Your task to perform on an android device: open app "Venmo" (install if not already installed) Image 0: 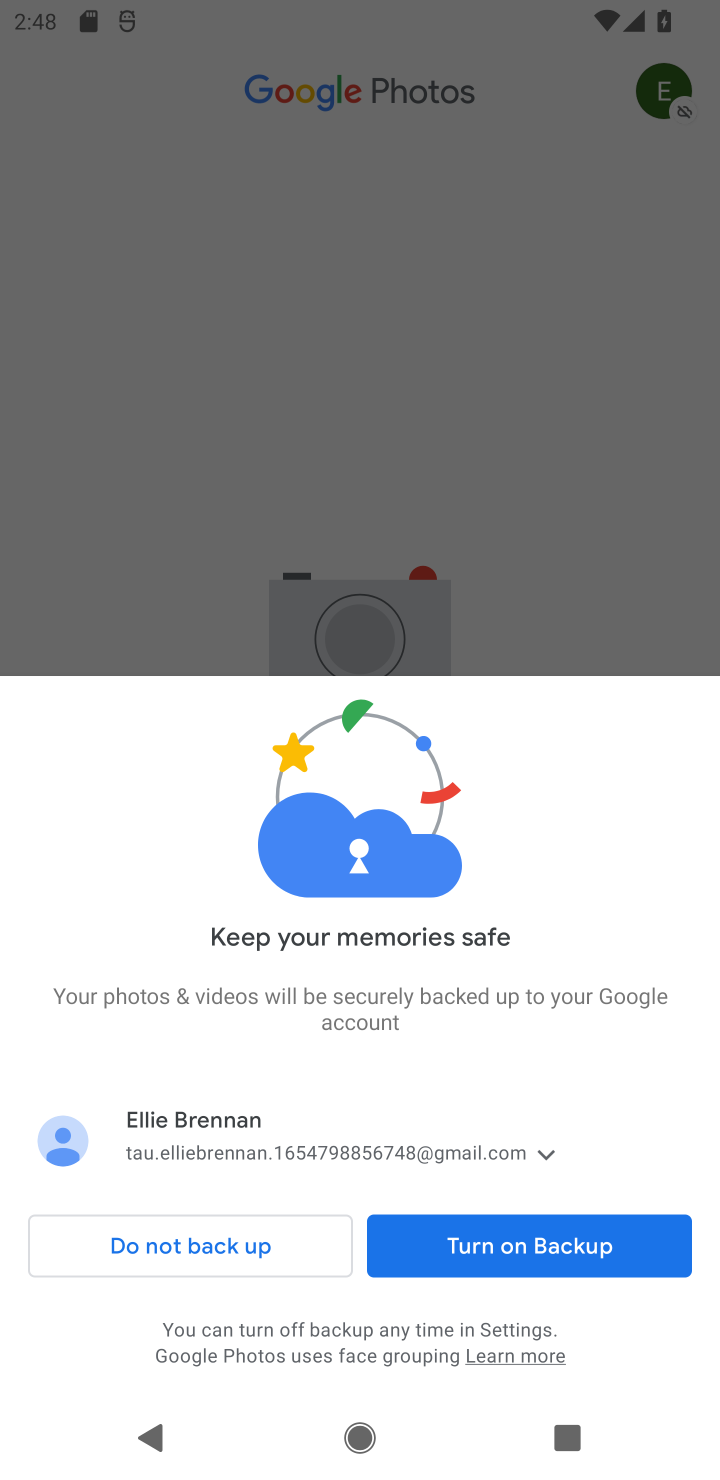
Step 0: press home button
Your task to perform on an android device: open app "Venmo" (install if not already installed) Image 1: 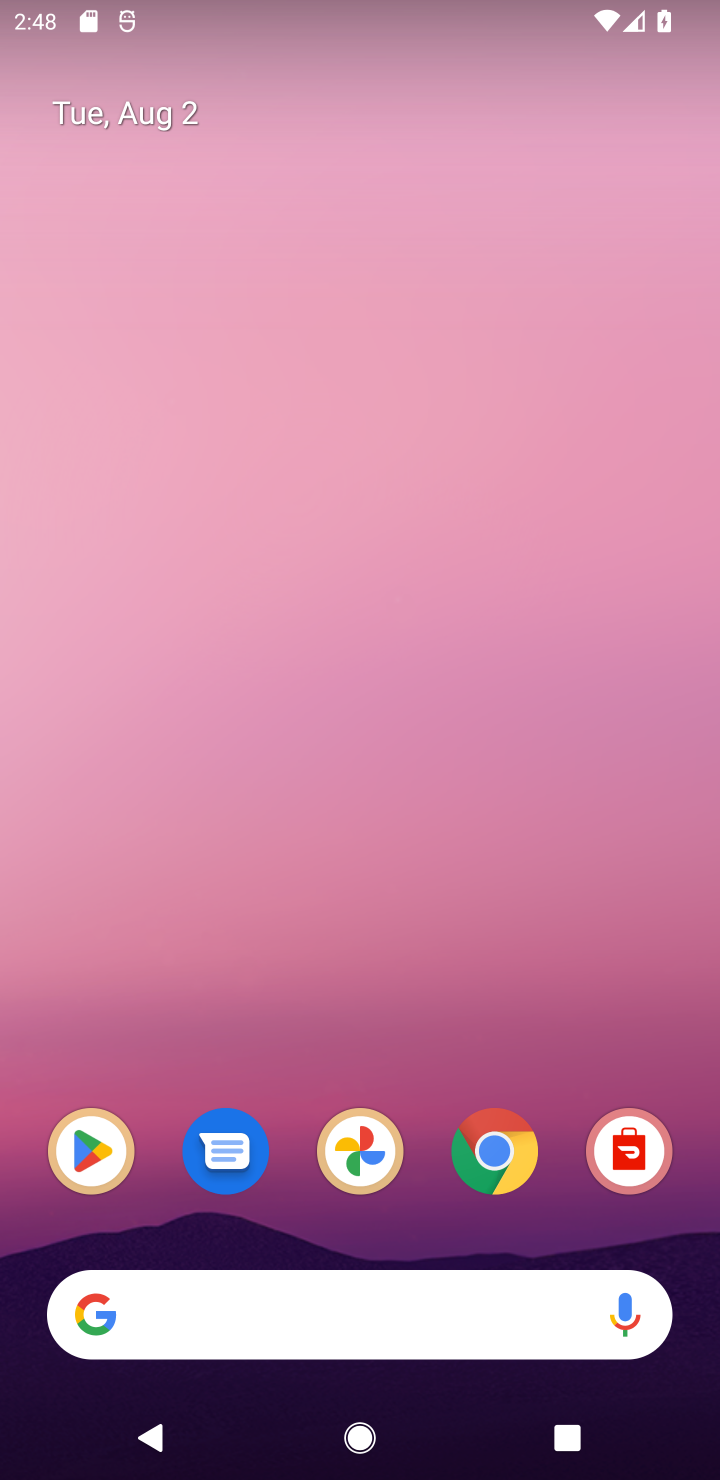
Step 1: drag from (400, 1017) to (505, 20)
Your task to perform on an android device: open app "Venmo" (install if not already installed) Image 2: 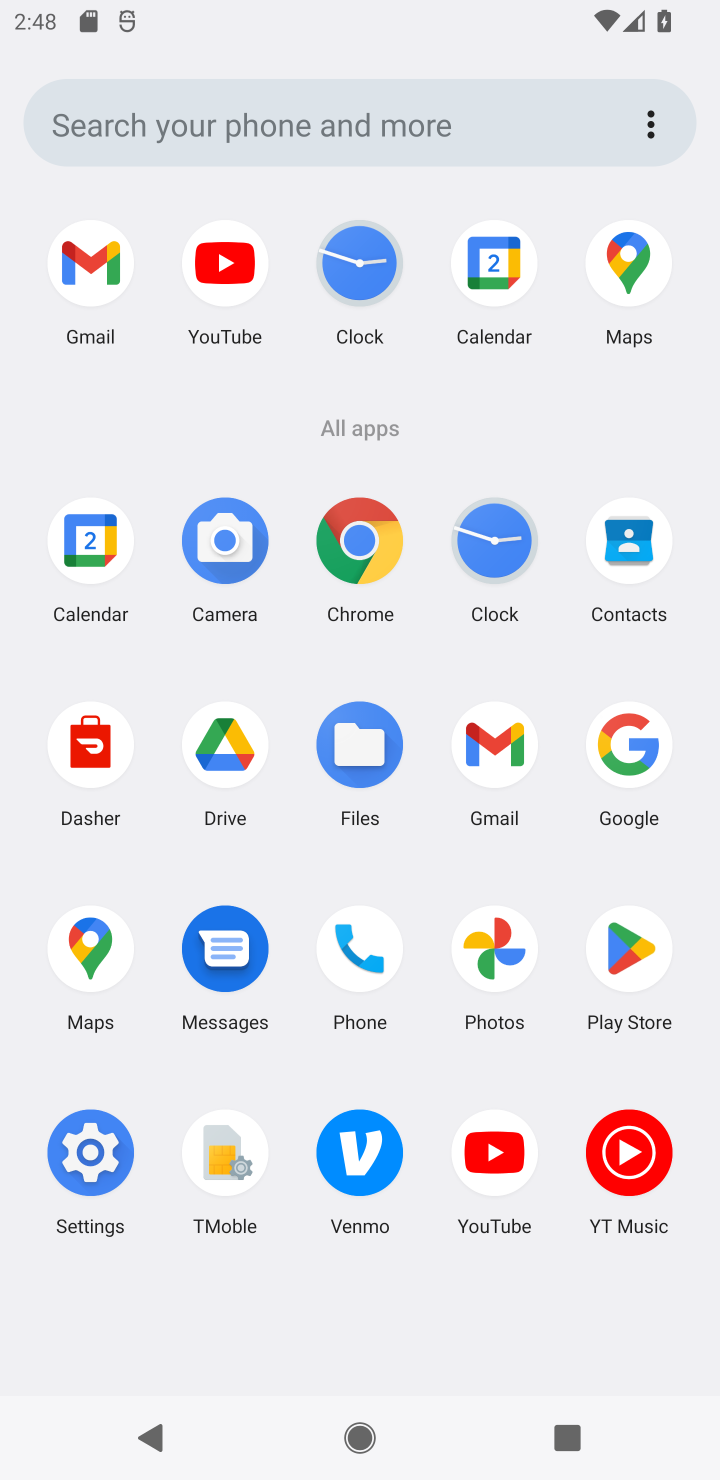
Step 2: click (349, 1145)
Your task to perform on an android device: open app "Venmo" (install if not already installed) Image 3: 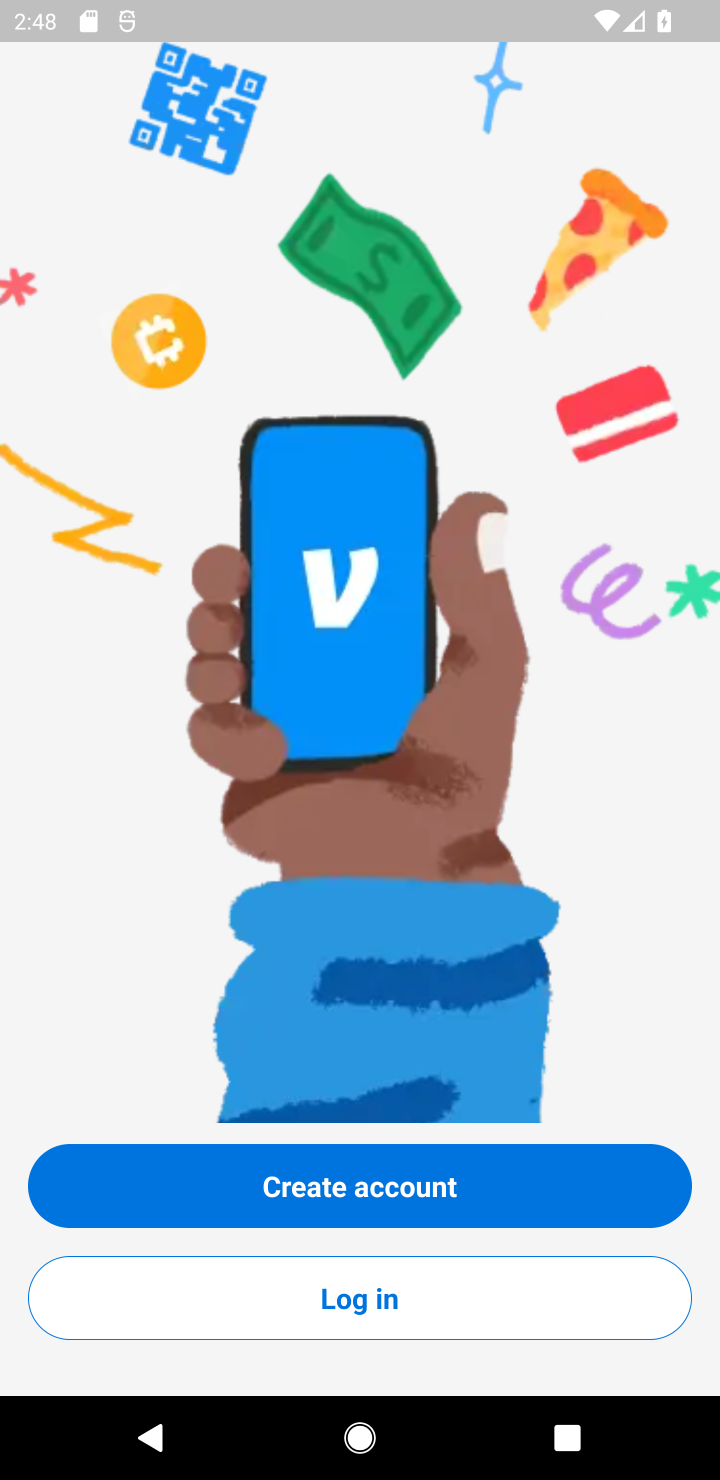
Step 3: task complete